Your task to perform on an android device: Open the gallery Image 0: 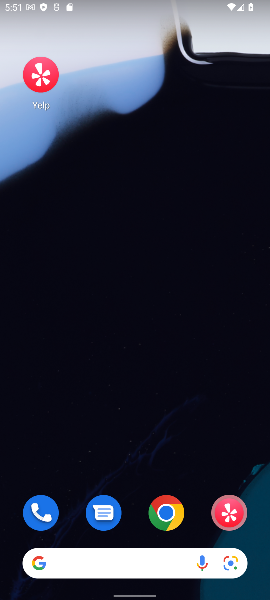
Step 0: drag from (138, 541) to (140, 0)
Your task to perform on an android device: Open the gallery Image 1: 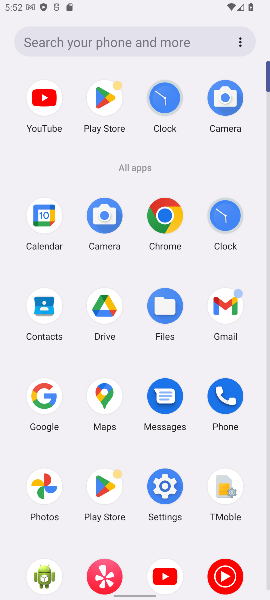
Step 1: click (54, 494)
Your task to perform on an android device: Open the gallery Image 2: 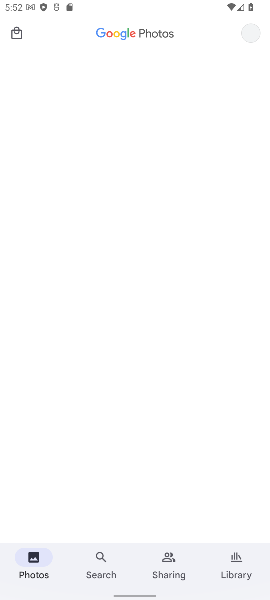
Step 2: task complete